Your task to perform on an android device: turn off sleep mode Image 0: 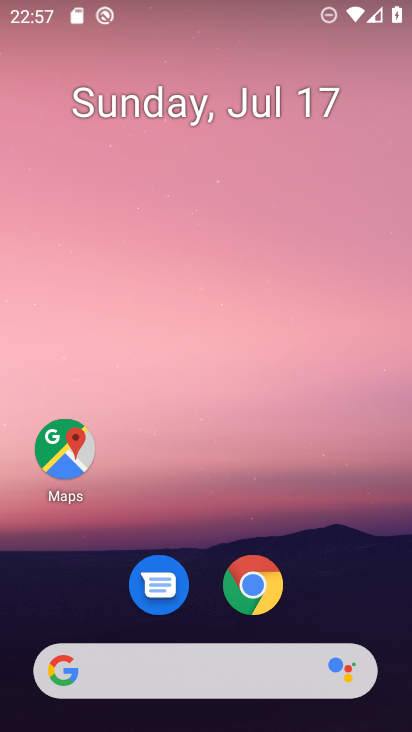
Step 0: press home button
Your task to perform on an android device: turn off sleep mode Image 1: 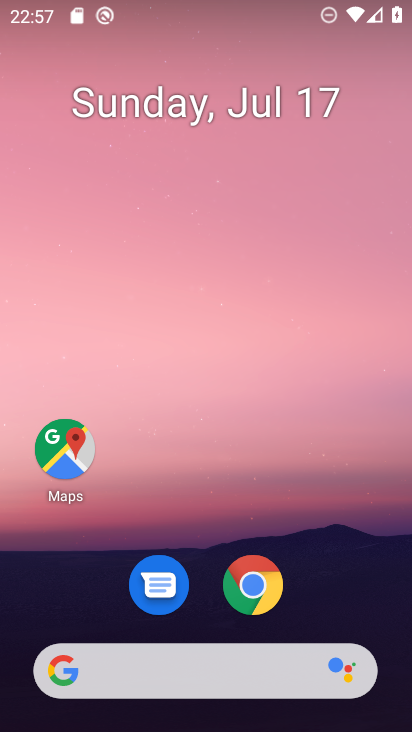
Step 1: drag from (238, 682) to (357, 131)
Your task to perform on an android device: turn off sleep mode Image 2: 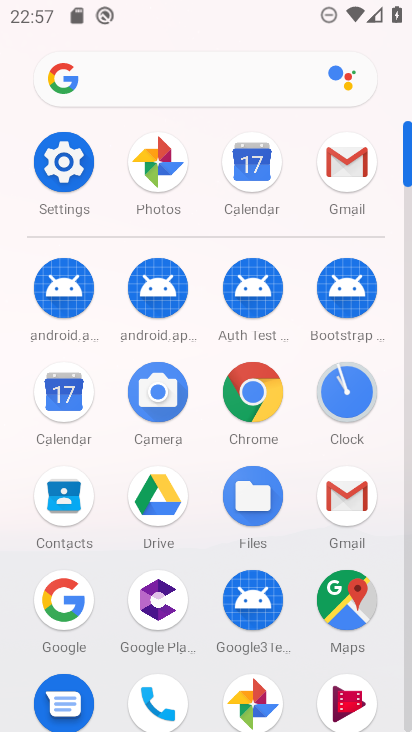
Step 2: click (66, 176)
Your task to perform on an android device: turn off sleep mode Image 3: 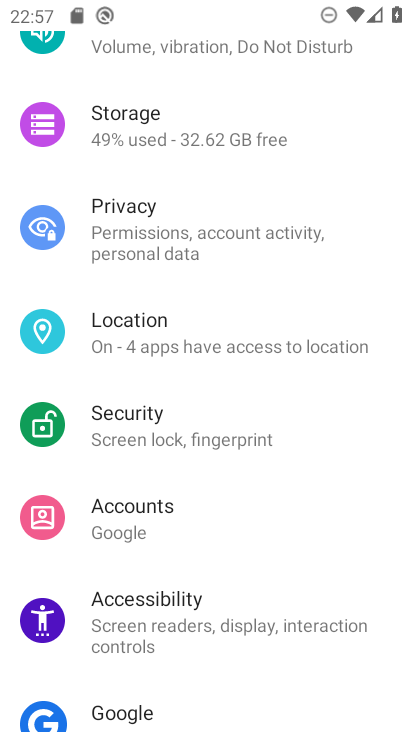
Step 3: drag from (335, 145) to (244, 573)
Your task to perform on an android device: turn off sleep mode Image 4: 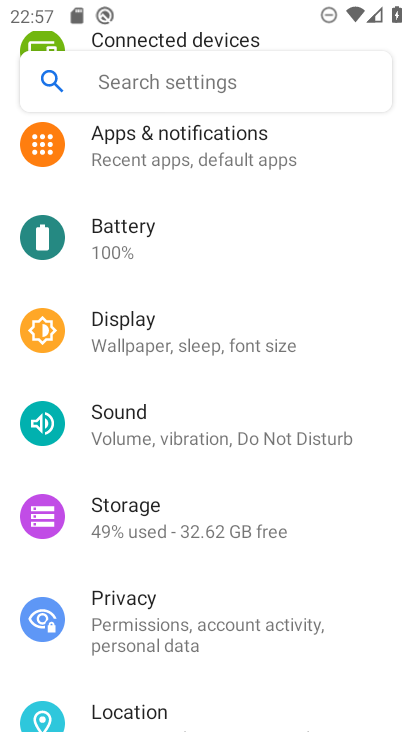
Step 4: click (187, 343)
Your task to perform on an android device: turn off sleep mode Image 5: 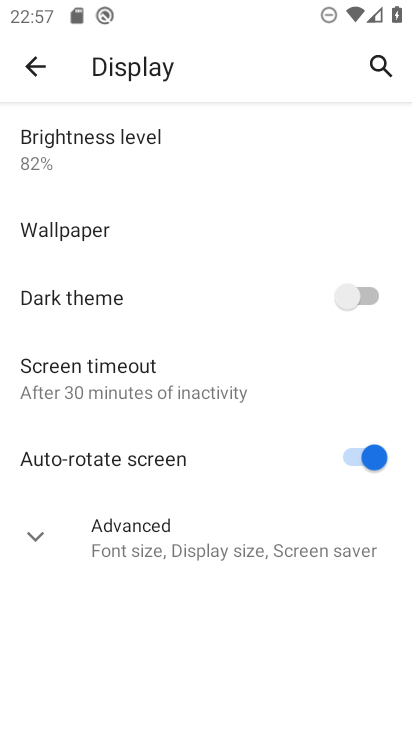
Step 5: click (71, 544)
Your task to perform on an android device: turn off sleep mode Image 6: 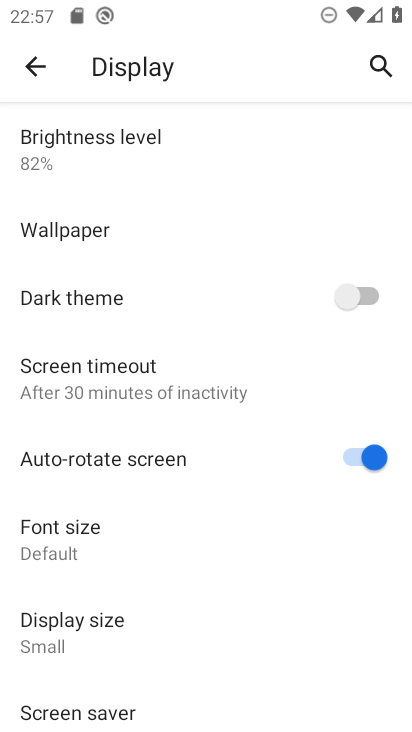
Step 6: task complete